Your task to perform on an android device: turn off notifications settings in the gmail app Image 0: 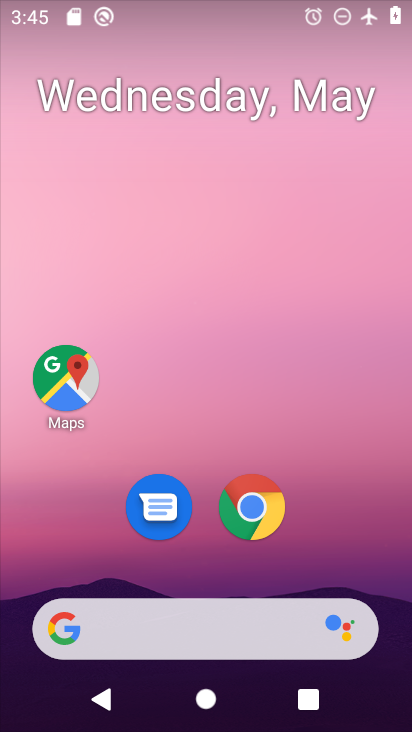
Step 0: drag from (213, 669) to (157, 4)
Your task to perform on an android device: turn off notifications settings in the gmail app Image 1: 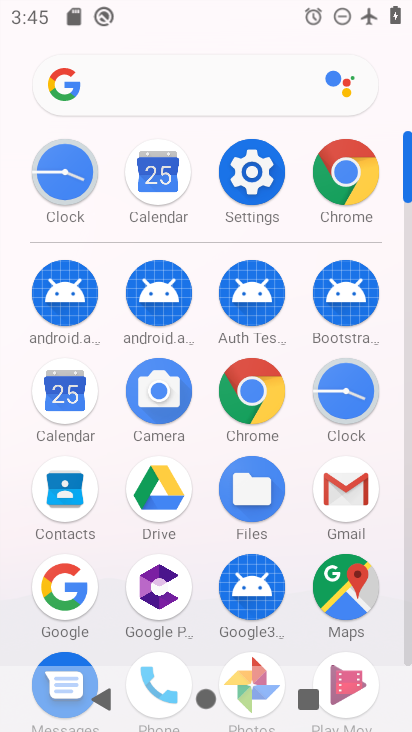
Step 1: click (356, 503)
Your task to perform on an android device: turn off notifications settings in the gmail app Image 2: 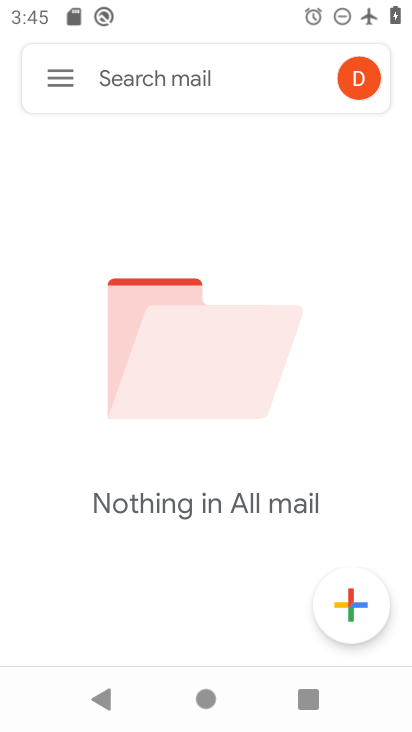
Step 2: click (54, 89)
Your task to perform on an android device: turn off notifications settings in the gmail app Image 3: 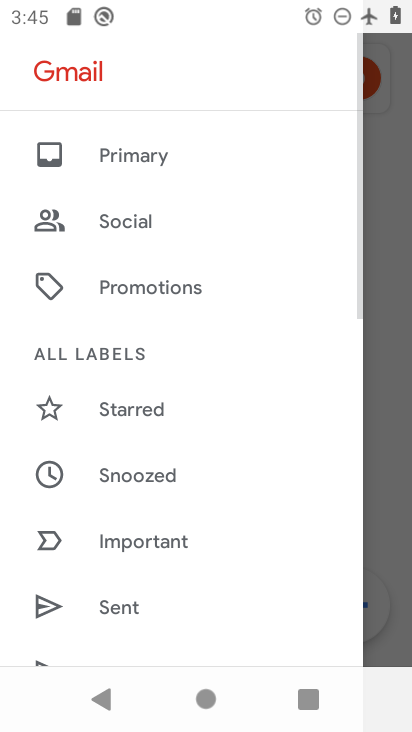
Step 3: drag from (121, 508) to (113, 74)
Your task to perform on an android device: turn off notifications settings in the gmail app Image 4: 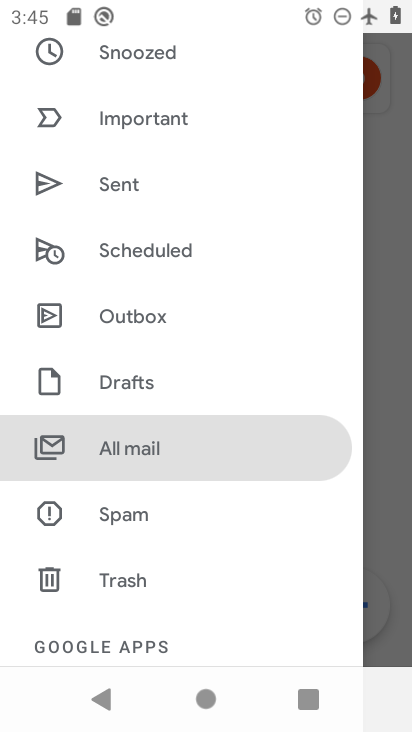
Step 4: drag from (166, 601) to (176, 226)
Your task to perform on an android device: turn off notifications settings in the gmail app Image 5: 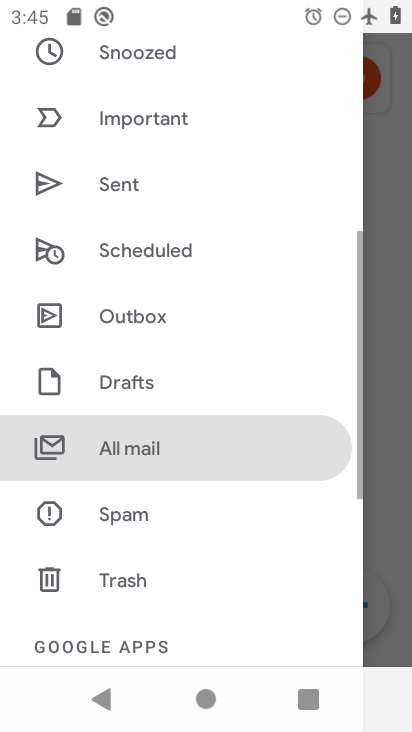
Step 5: drag from (184, 598) to (275, 178)
Your task to perform on an android device: turn off notifications settings in the gmail app Image 6: 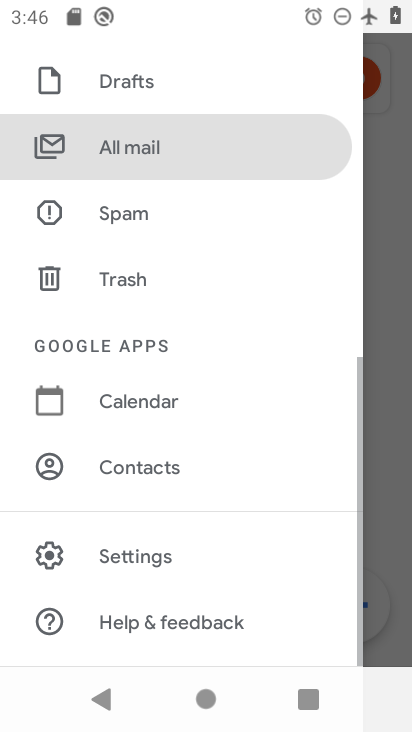
Step 6: click (93, 565)
Your task to perform on an android device: turn off notifications settings in the gmail app Image 7: 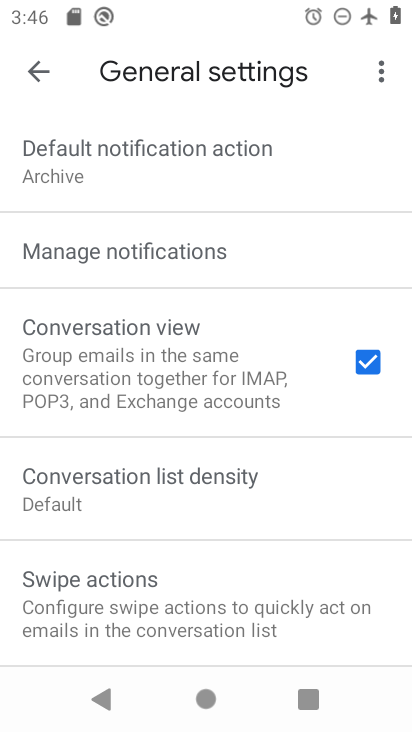
Step 7: click (254, 259)
Your task to perform on an android device: turn off notifications settings in the gmail app Image 8: 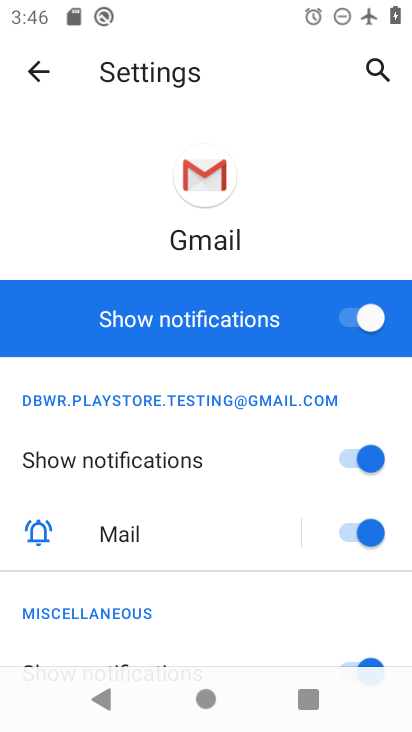
Step 8: click (344, 335)
Your task to perform on an android device: turn off notifications settings in the gmail app Image 9: 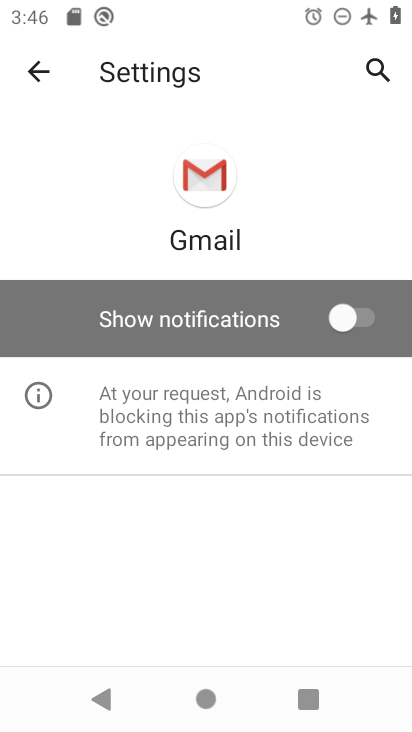
Step 9: task complete